Your task to perform on an android device: turn off priority inbox in the gmail app Image 0: 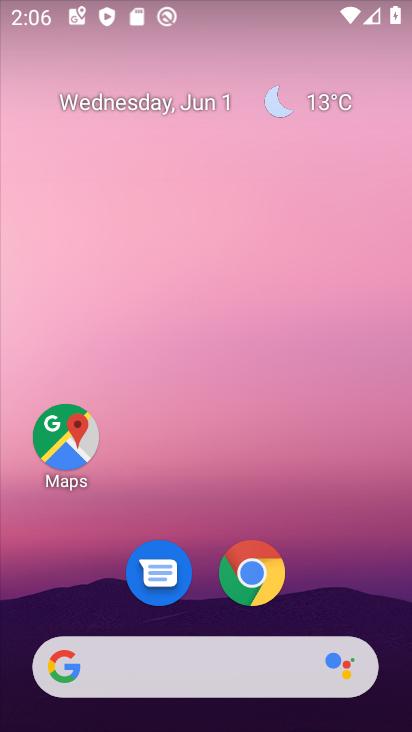
Step 0: drag from (234, 643) to (221, 99)
Your task to perform on an android device: turn off priority inbox in the gmail app Image 1: 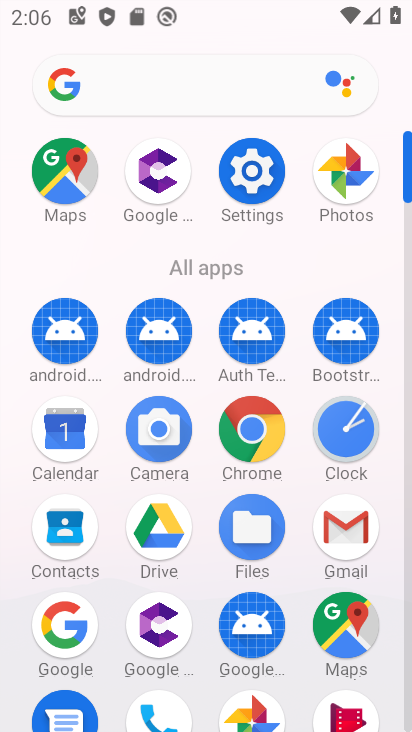
Step 1: click (340, 543)
Your task to perform on an android device: turn off priority inbox in the gmail app Image 2: 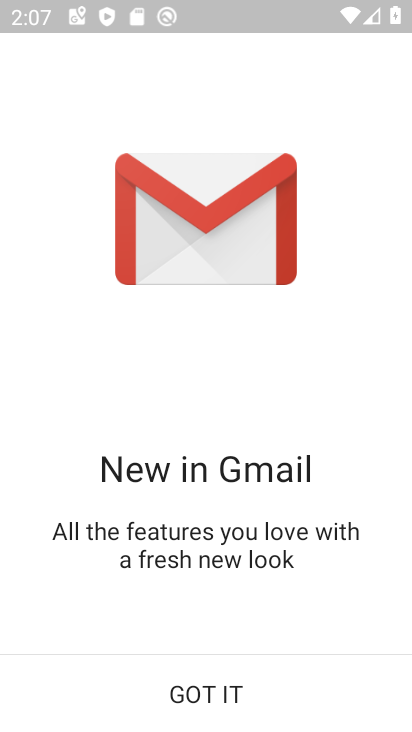
Step 2: click (231, 684)
Your task to perform on an android device: turn off priority inbox in the gmail app Image 3: 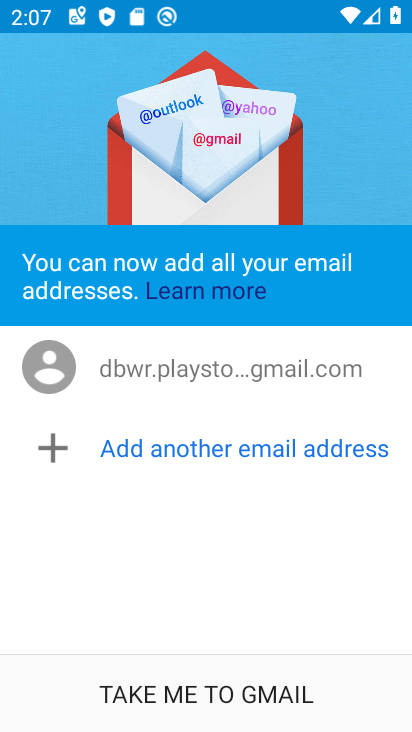
Step 3: click (232, 678)
Your task to perform on an android device: turn off priority inbox in the gmail app Image 4: 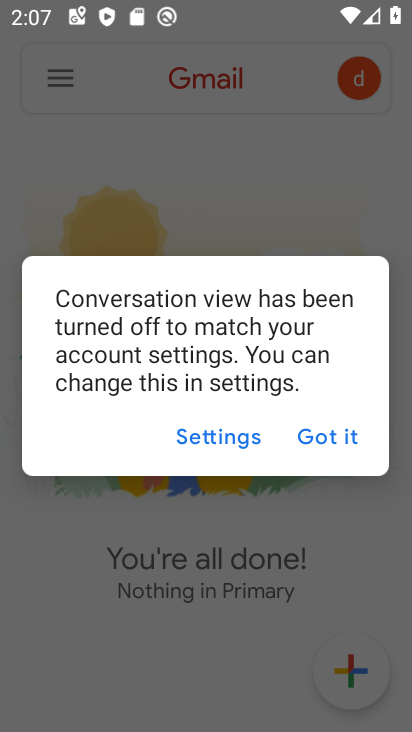
Step 4: click (307, 429)
Your task to perform on an android device: turn off priority inbox in the gmail app Image 5: 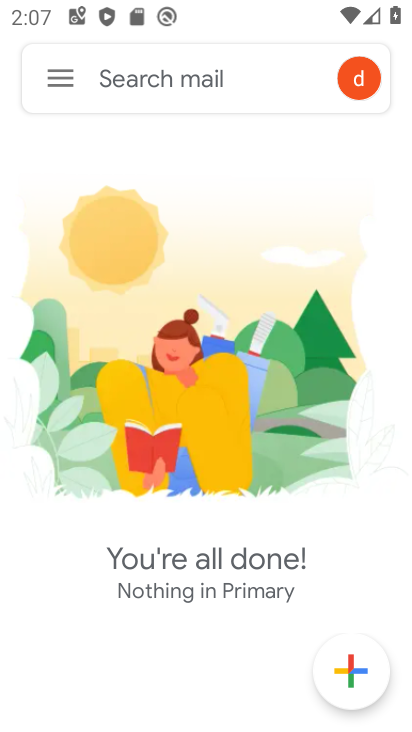
Step 5: click (42, 79)
Your task to perform on an android device: turn off priority inbox in the gmail app Image 6: 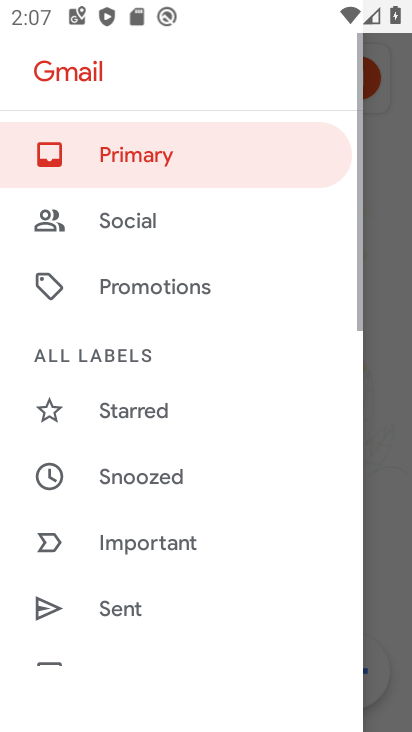
Step 6: drag from (64, 568) to (70, 81)
Your task to perform on an android device: turn off priority inbox in the gmail app Image 7: 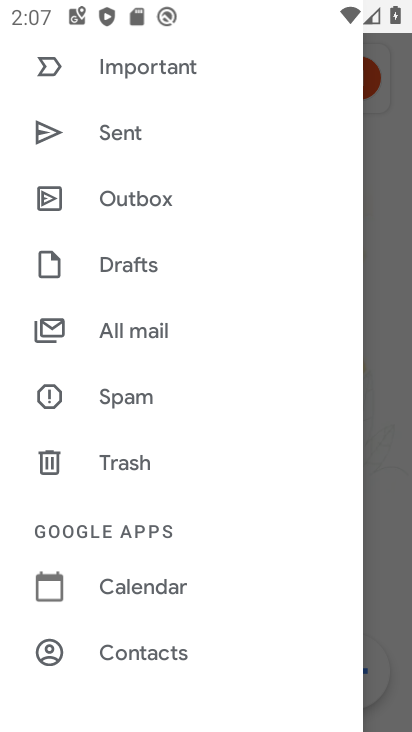
Step 7: drag from (120, 549) to (126, 44)
Your task to perform on an android device: turn off priority inbox in the gmail app Image 8: 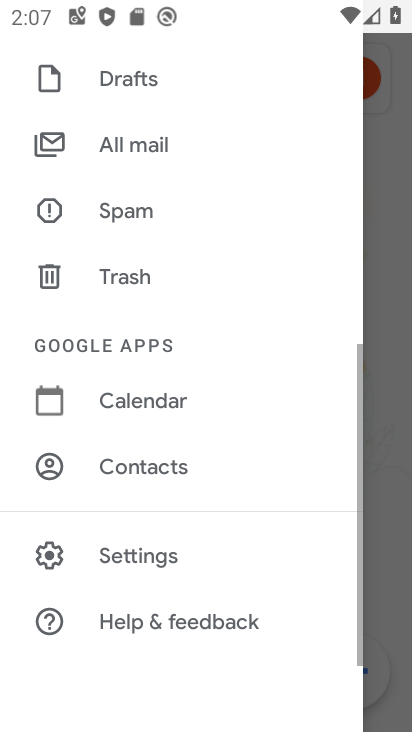
Step 8: click (155, 540)
Your task to perform on an android device: turn off priority inbox in the gmail app Image 9: 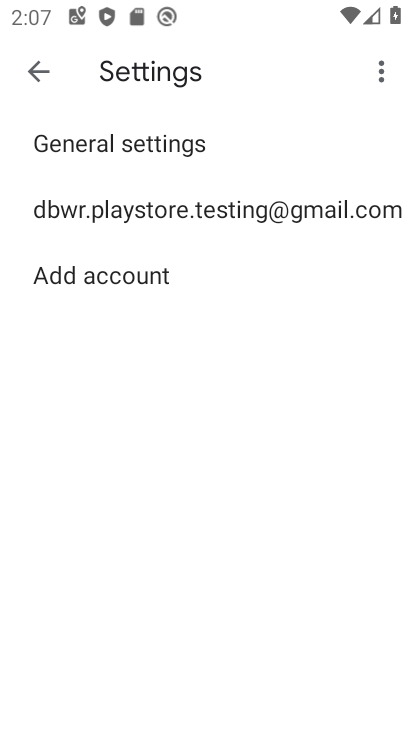
Step 9: click (184, 230)
Your task to perform on an android device: turn off priority inbox in the gmail app Image 10: 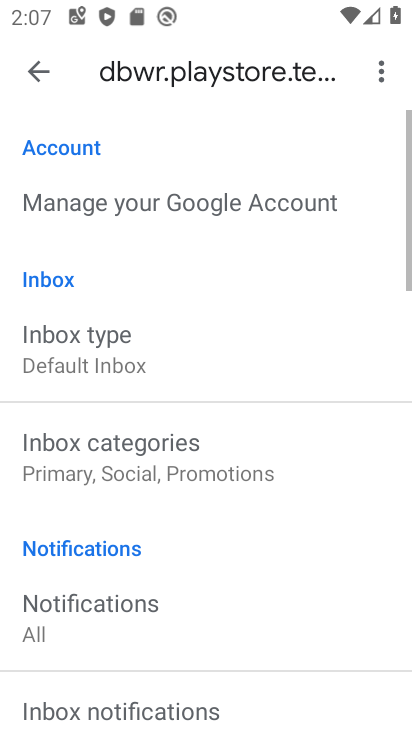
Step 10: click (99, 378)
Your task to perform on an android device: turn off priority inbox in the gmail app Image 11: 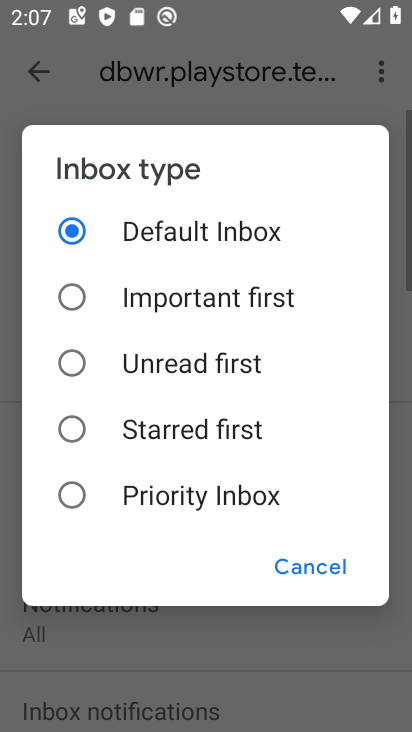
Step 11: task complete